Your task to perform on an android device: open chrome privacy settings Image 0: 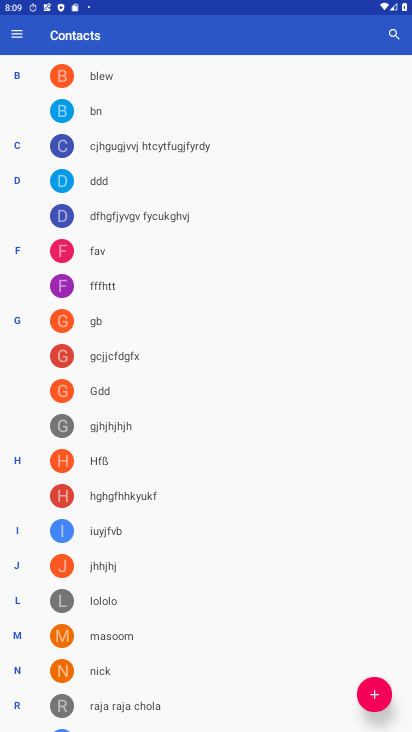
Step 0: press home button
Your task to perform on an android device: open chrome privacy settings Image 1: 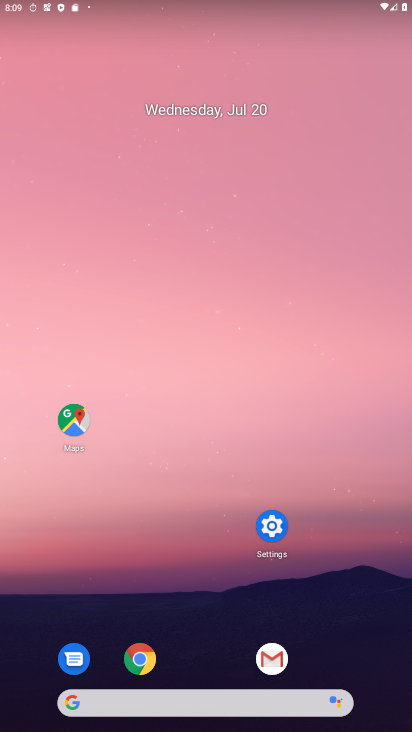
Step 1: click (151, 653)
Your task to perform on an android device: open chrome privacy settings Image 2: 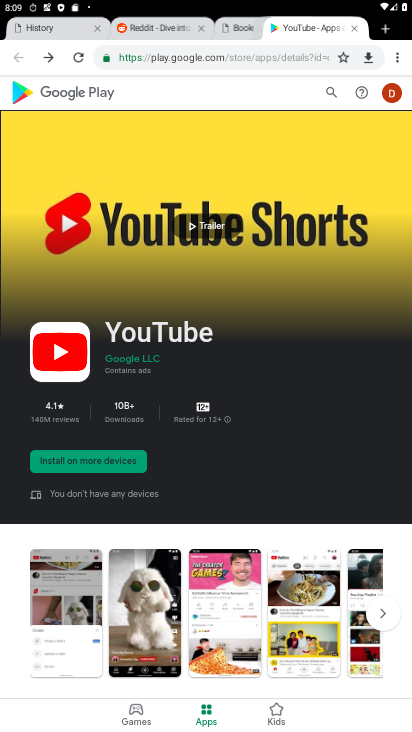
Step 2: click (397, 57)
Your task to perform on an android device: open chrome privacy settings Image 3: 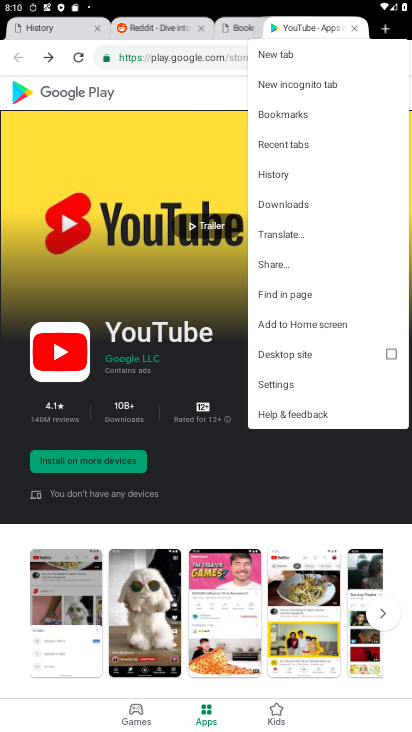
Step 3: click (276, 377)
Your task to perform on an android device: open chrome privacy settings Image 4: 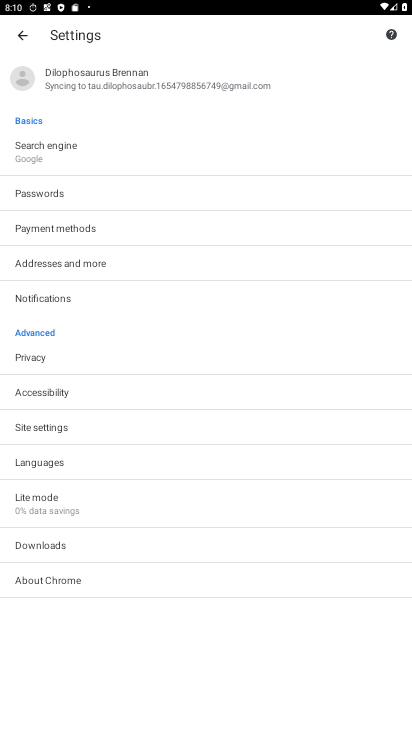
Step 4: click (39, 355)
Your task to perform on an android device: open chrome privacy settings Image 5: 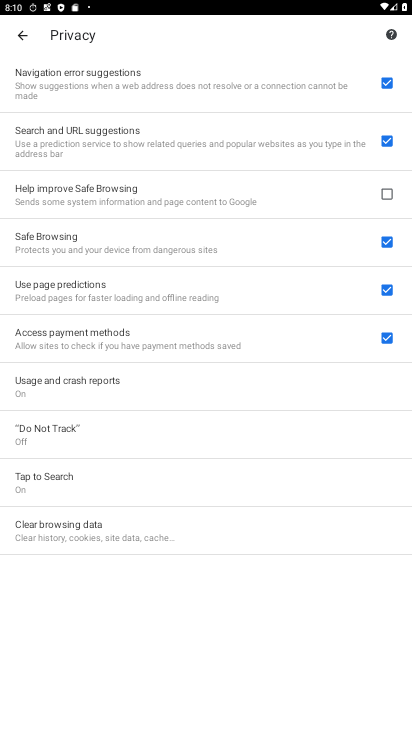
Step 5: task complete